Your task to perform on an android device: Open network settings Image 0: 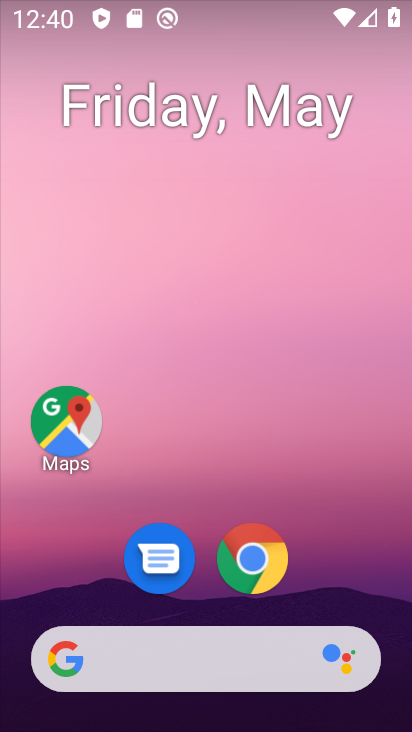
Step 0: drag from (388, 600) to (317, 181)
Your task to perform on an android device: Open network settings Image 1: 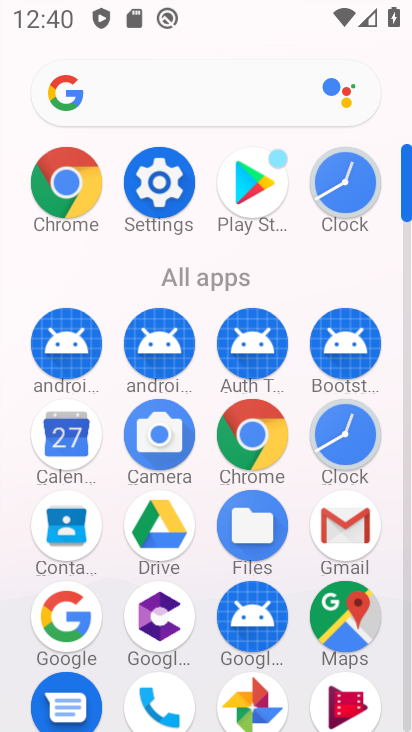
Step 1: click (161, 182)
Your task to perform on an android device: Open network settings Image 2: 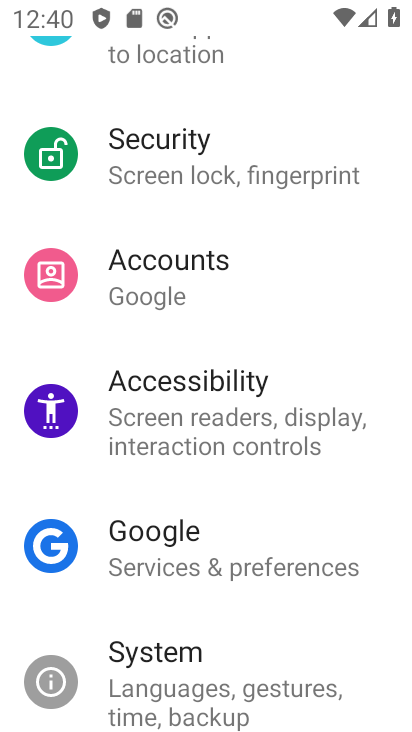
Step 2: drag from (205, 206) to (199, 690)
Your task to perform on an android device: Open network settings Image 3: 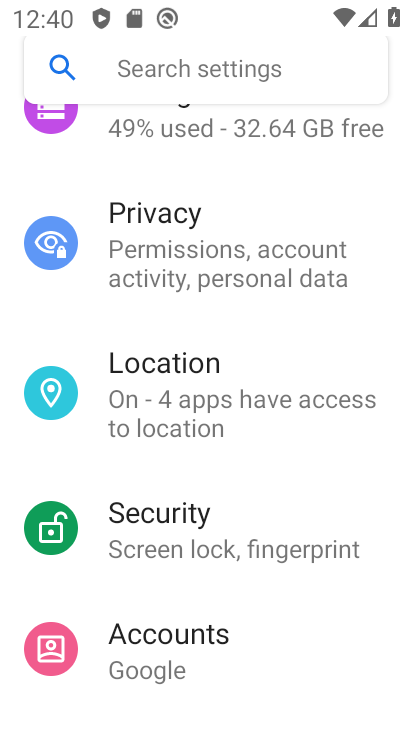
Step 3: drag from (182, 177) to (191, 639)
Your task to perform on an android device: Open network settings Image 4: 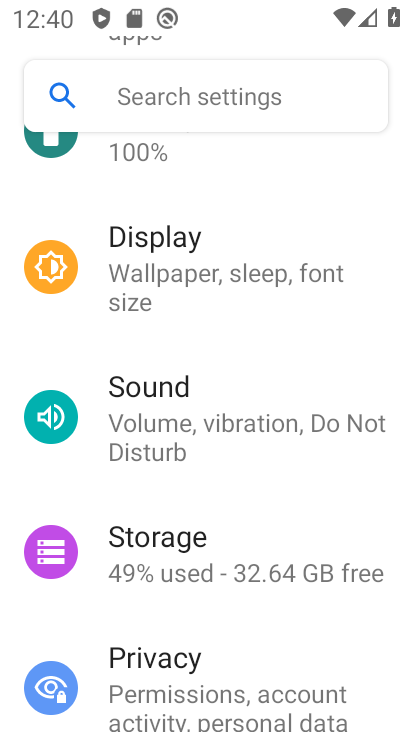
Step 4: drag from (188, 336) to (200, 712)
Your task to perform on an android device: Open network settings Image 5: 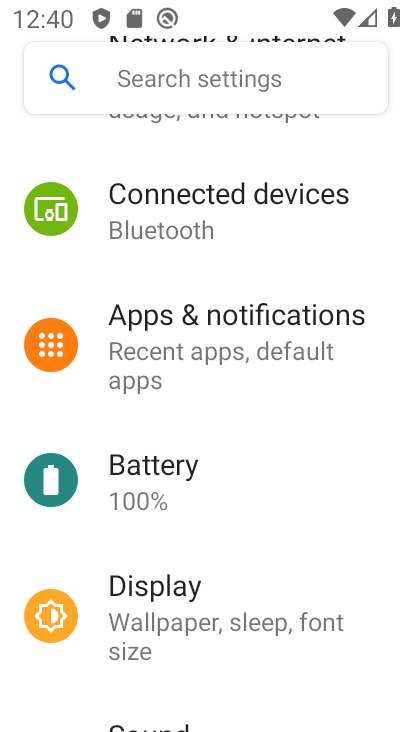
Step 5: drag from (216, 267) to (216, 679)
Your task to perform on an android device: Open network settings Image 6: 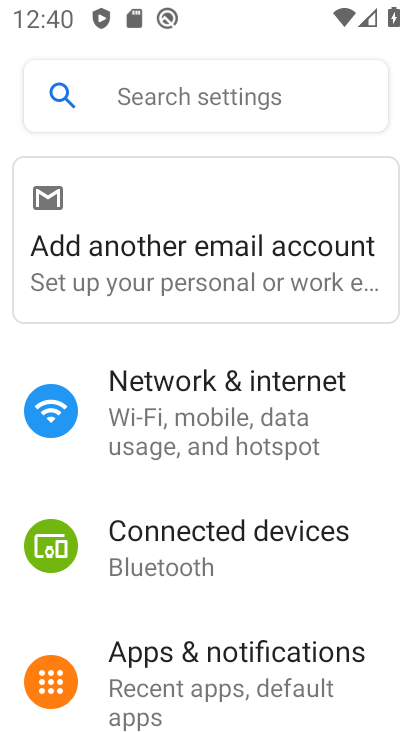
Step 6: click (190, 421)
Your task to perform on an android device: Open network settings Image 7: 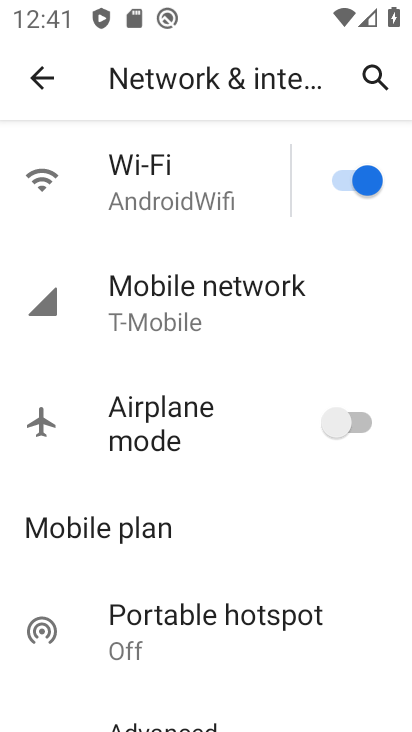
Step 7: task complete